Your task to perform on an android device: Go to settings Image 0: 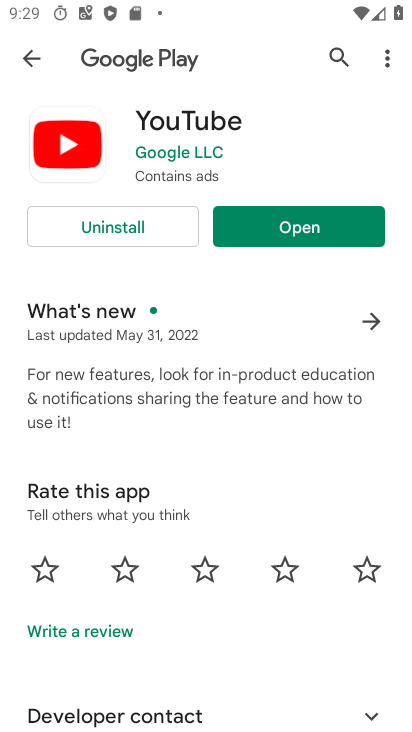
Step 0: press home button
Your task to perform on an android device: Go to settings Image 1: 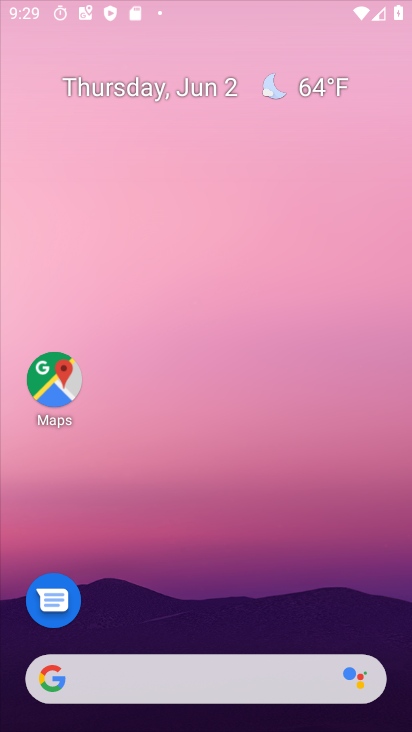
Step 1: drag from (212, 611) to (217, 67)
Your task to perform on an android device: Go to settings Image 2: 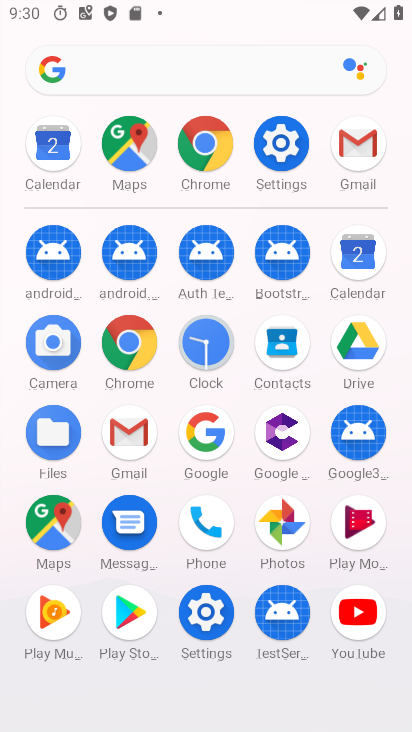
Step 2: click (280, 148)
Your task to perform on an android device: Go to settings Image 3: 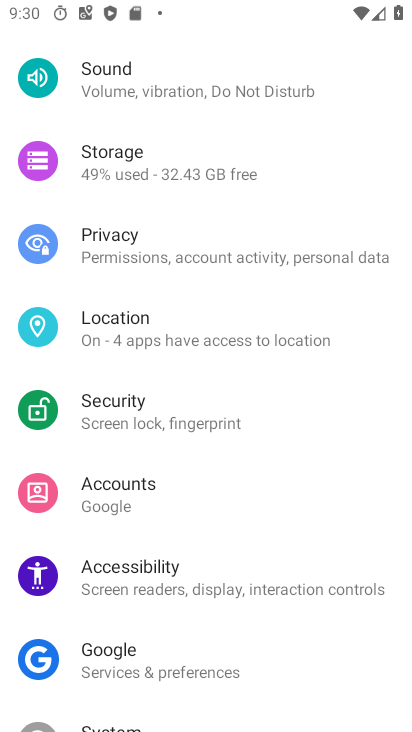
Step 3: task complete